Your task to perform on an android device: Open battery settings Image 0: 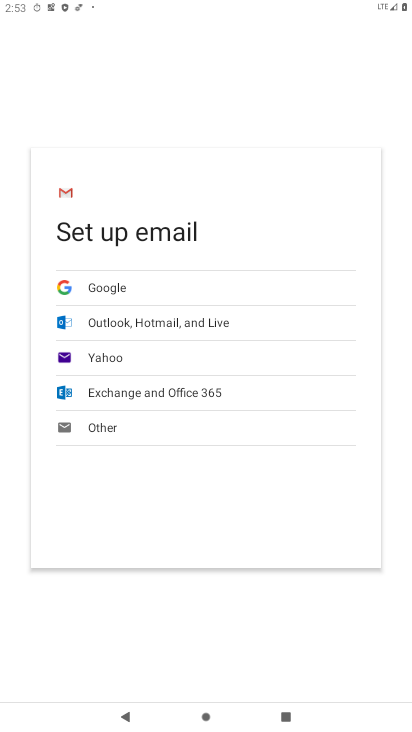
Step 0: press home button
Your task to perform on an android device: Open battery settings Image 1: 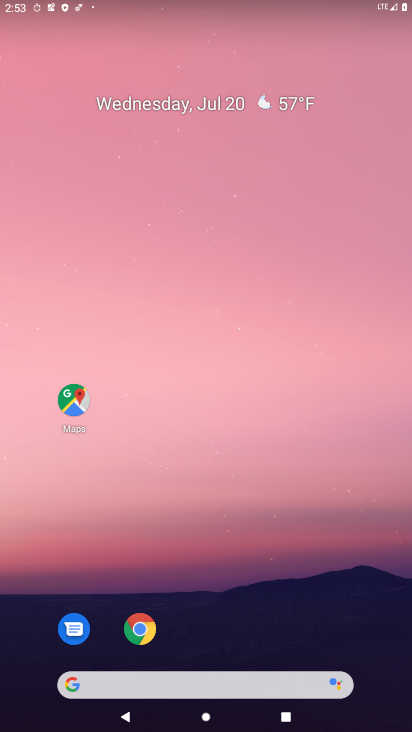
Step 1: drag from (217, 691) to (190, 305)
Your task to perform on an android device: Open battery settings Image 2: 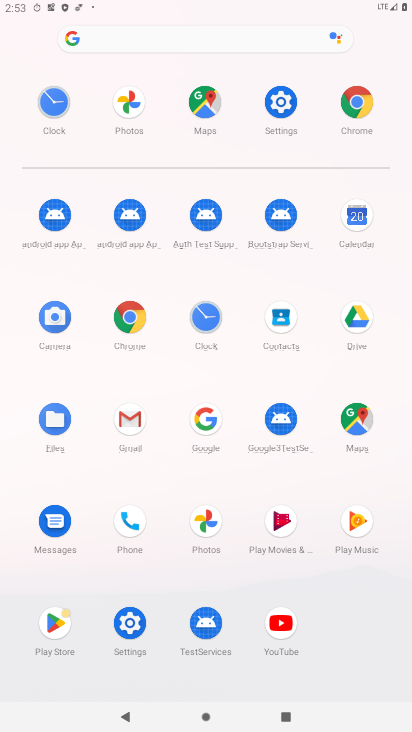
Step 2: click (144, 617)
Your task to perform on an android device: Open battery settings Image 3: 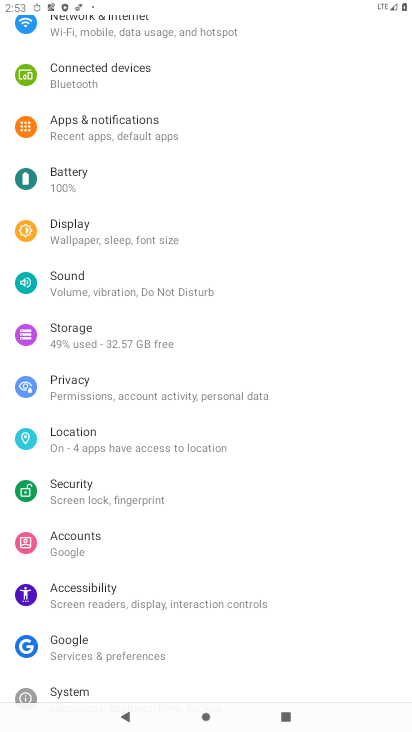
Step 3: click (79, 179)
Your task to perform on an android device: Open battery settings Image 4: 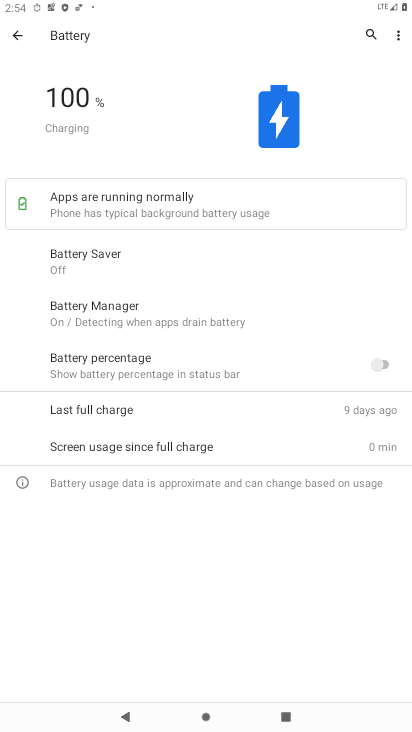
Step 4: task complete